Your task to perform on an android device: Open the web browser Image 0: 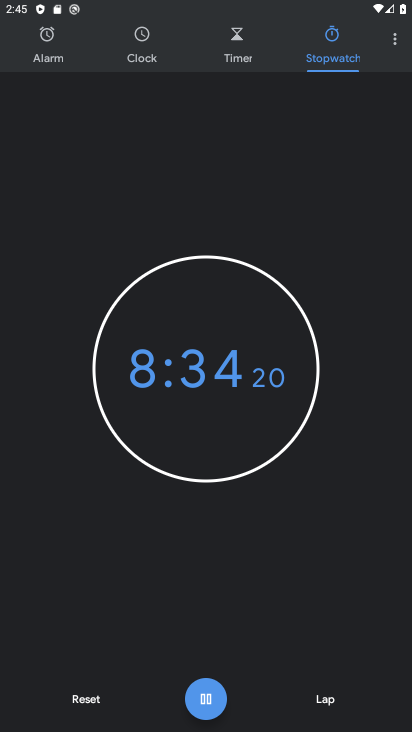
Step 0: press home button
Your task to perform on an android device: Open the web browser Image 1: 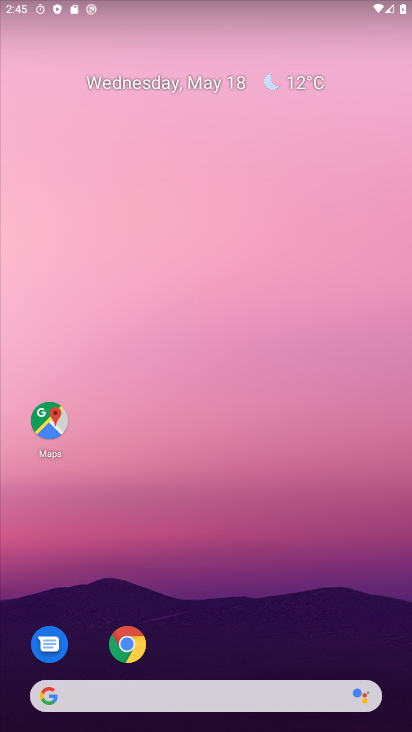
Step 1: click (118, 642)
Your task to perform on an android device: Open the web browser Image 2: 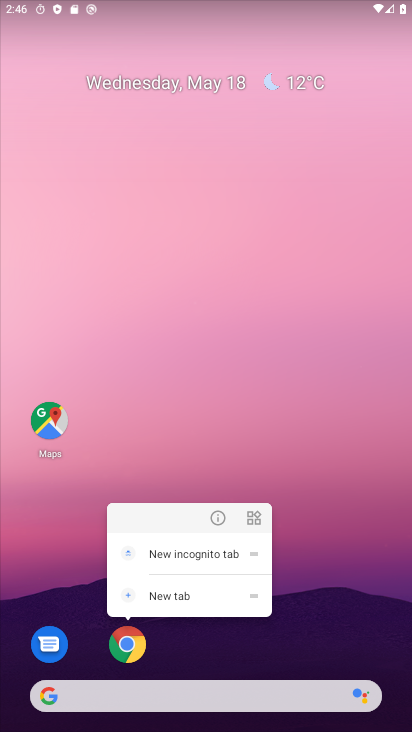
Step 2: click (128, 645)
Your task to perform on an android device: Open the web browser Image 3: 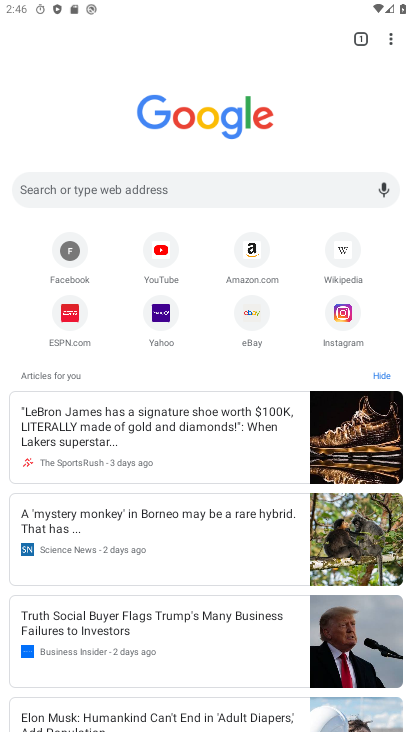
Step 3: task complete